Your task to perform on an android device: turn on wifi Image 0: 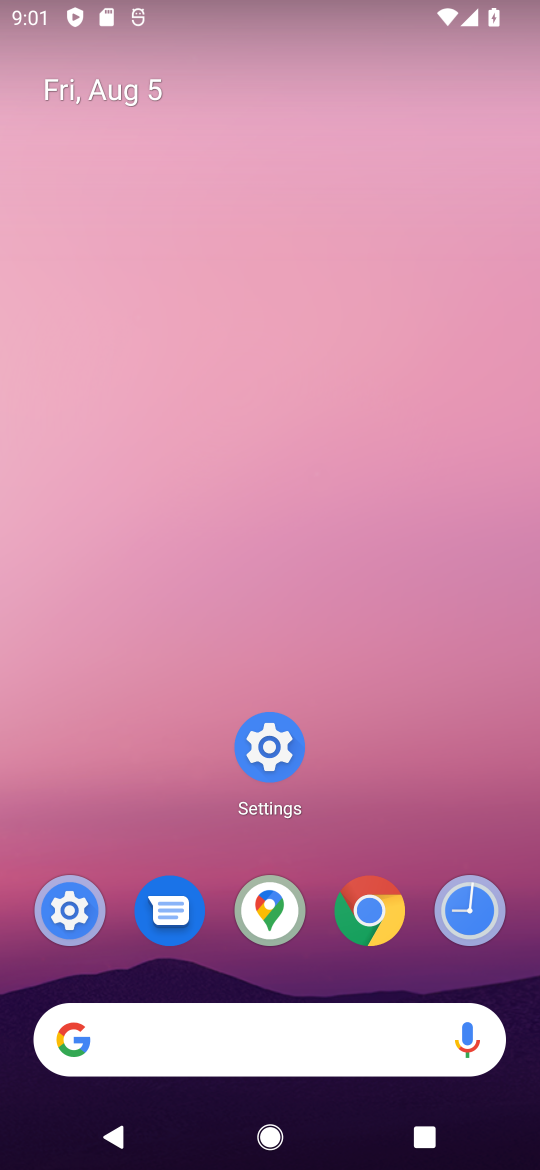
Step 0: click (251, 753)
Your task to perform on an android device: turn on wifi Image 1: 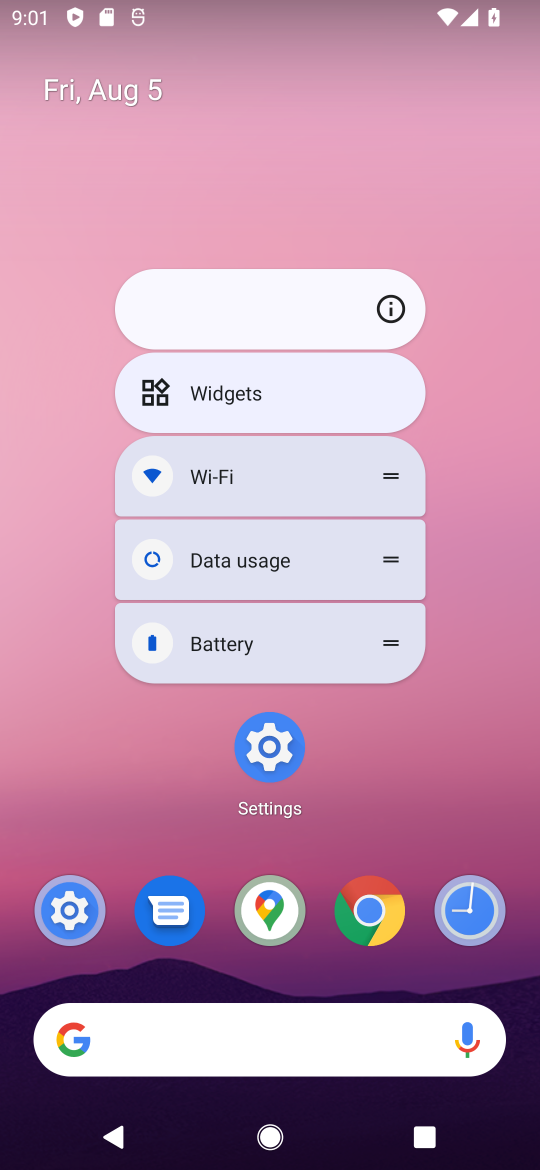
Step 1: click (262, 740)
Your task to perform on an android device: turn on wifi Image 2: 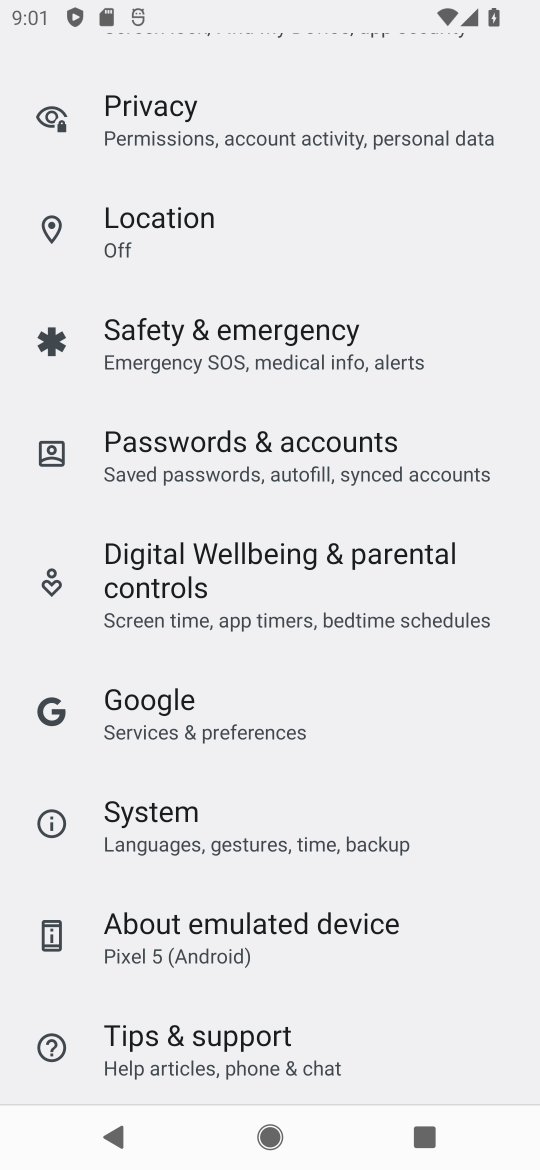
Step 2: drag from (398, 167) to (435, 964)
Your task to perform on an android device: turn on wifi Image 3: 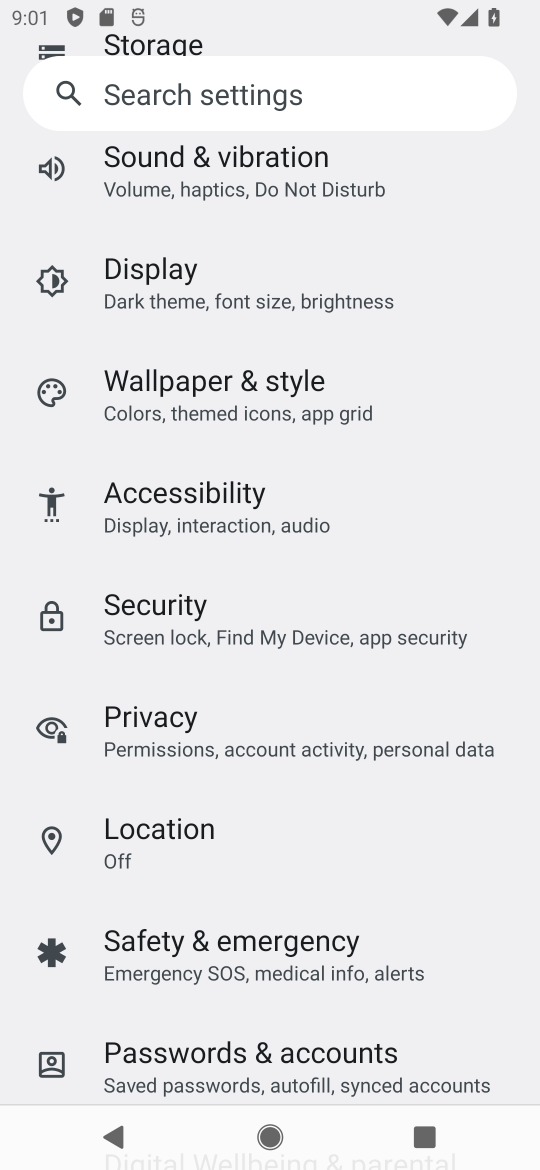
Step 3: drag from (340, 294) to (222, 983)
Your task to perform on an android device: turn on wifi Image 4: 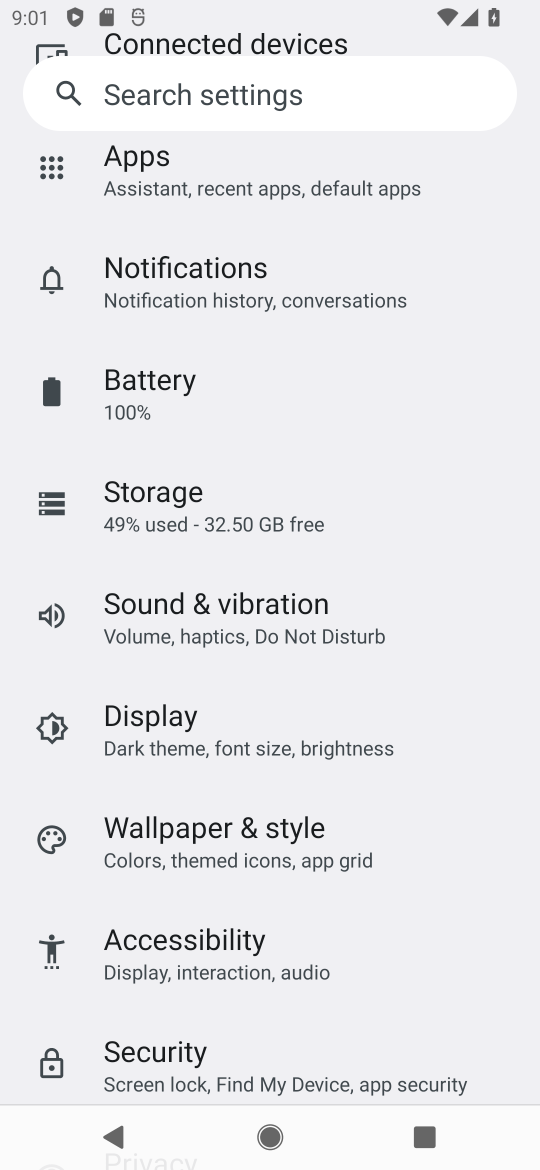
Step 4: drag from (311, 232) to (324, 891)
Your task to perform on an android device: turn on wifi Image 5: 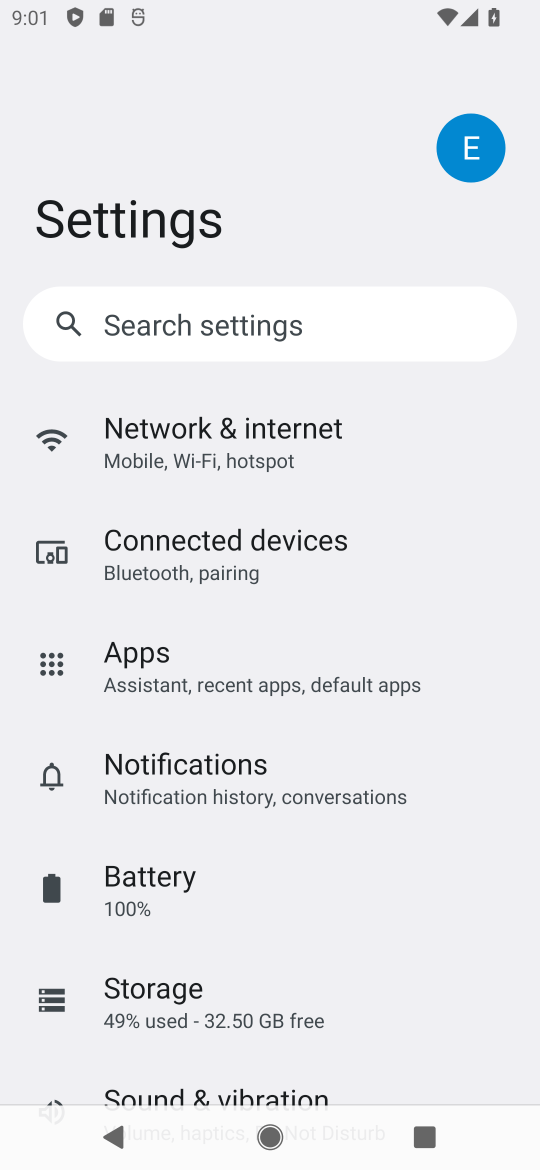
Step 5: click (227, 436)
Your task to perform on an android device: turn on wifi Image 6: 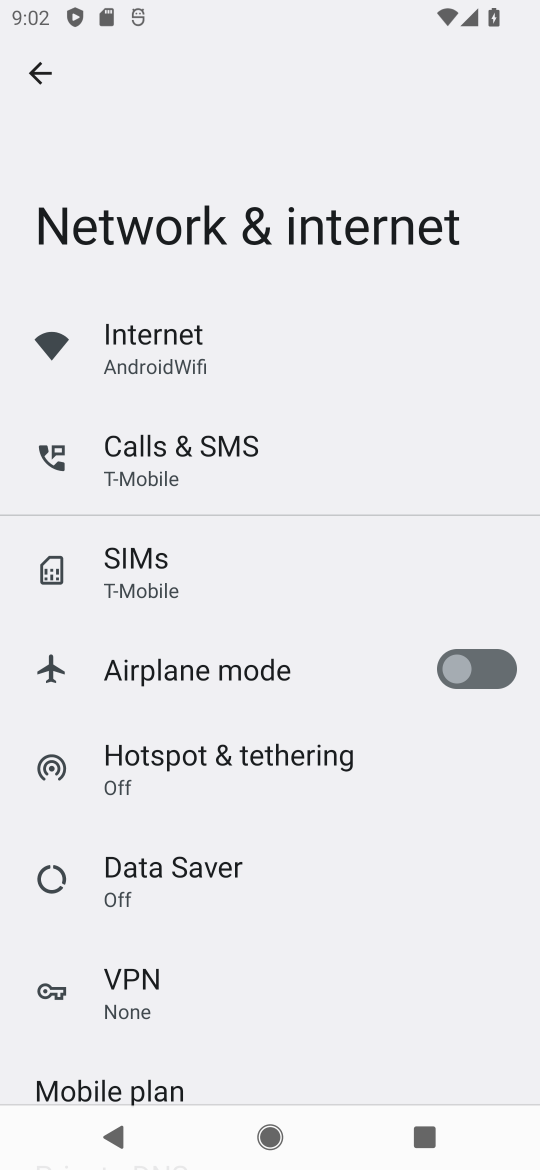
Step 6: click (172, 342)
Your task to perform on an android device: turn on wifi Image 7: 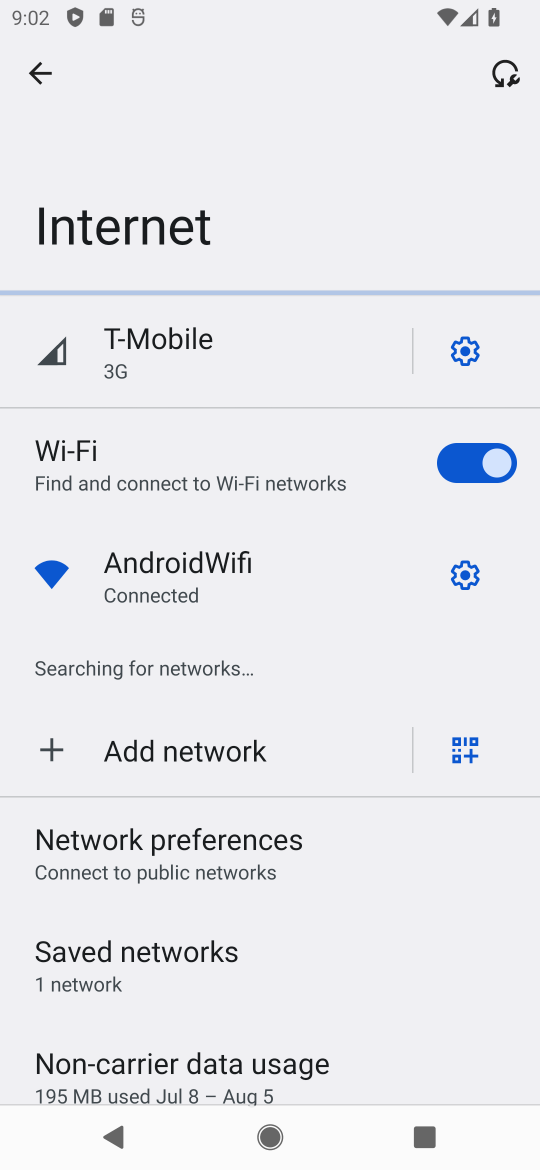
Step 7: task complete